Your task to perform on an android device: allow cookies in the chrome app Image 0: 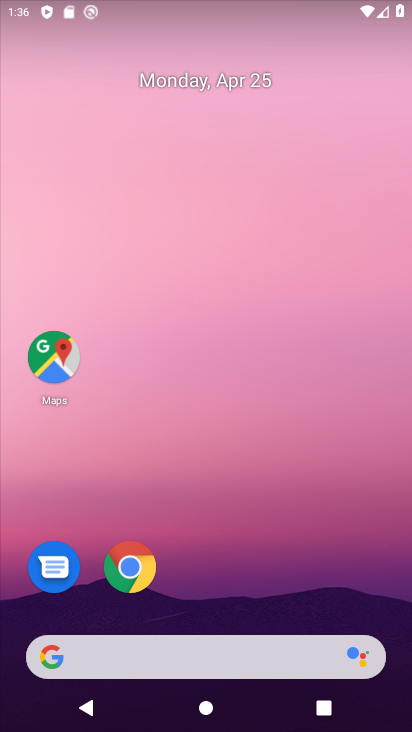
Step 0: click (127, 568)
Your task to perform on an android device: allow cookies in the chrome app Image 1: 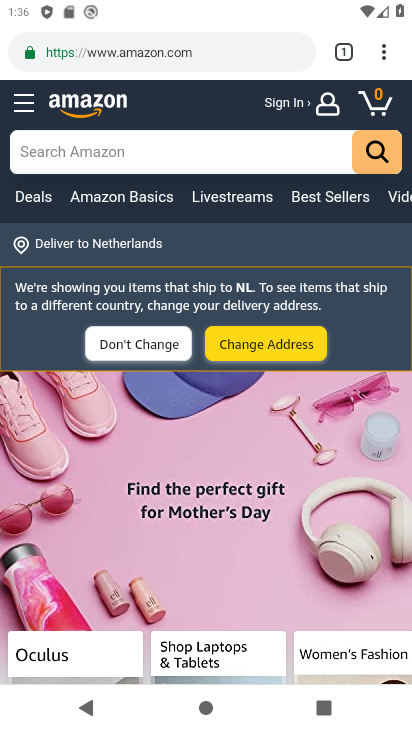
Step 1: click (380, 54)
Your task to perform on an android device: allow cookies in the chrome app Image 2: 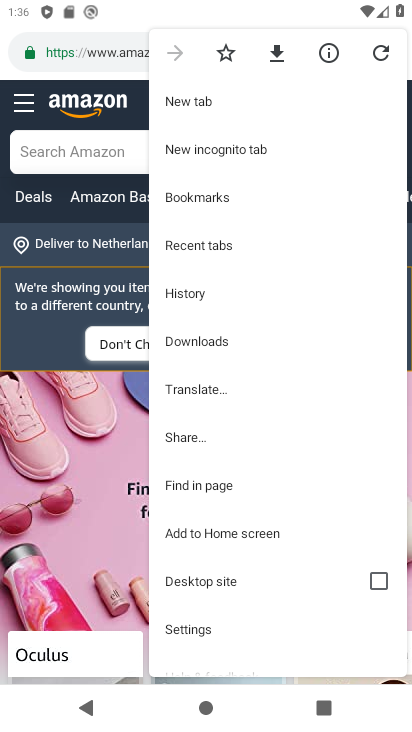
Step 2: drag from (285, 595) to (290, 280)
Your task to perform on an android device: allow cookies in the chrome app Image 3: 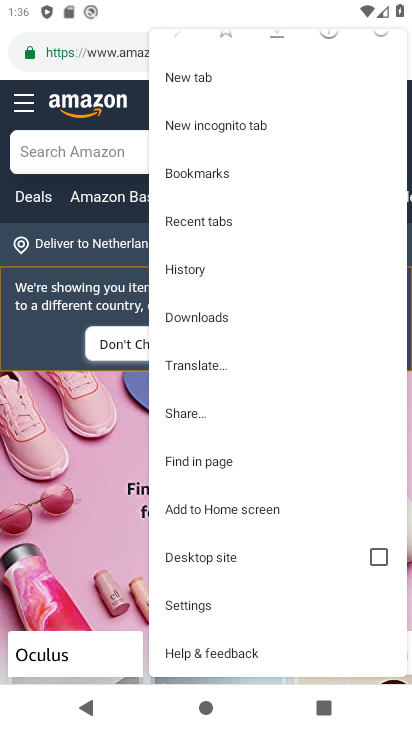
Step 3: click (176, 600)
Your task to perform on an android device: allow cookies in the chrome app Image 4: 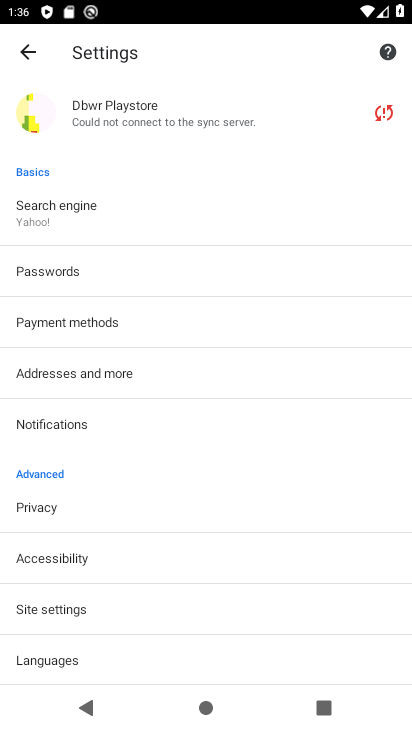
Step 4: drag from (150, 607) to (162, 418)
Your task to perform on an android device: allow cookies in the chrome app Image 5: 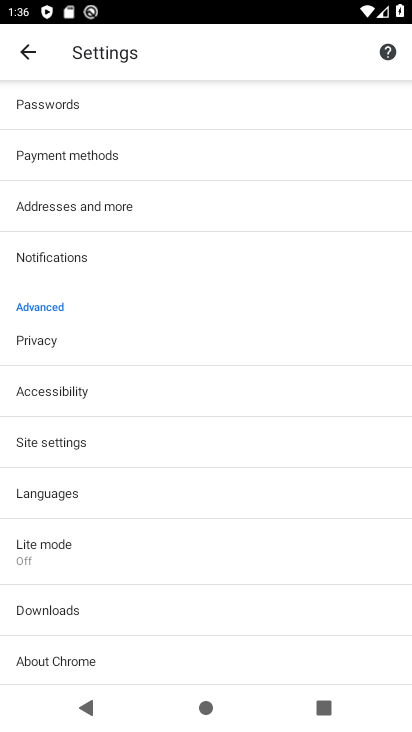
Step 5: click (43, 447)
Your task to perform on an android device: allow cookies in the chrome app Image 6: 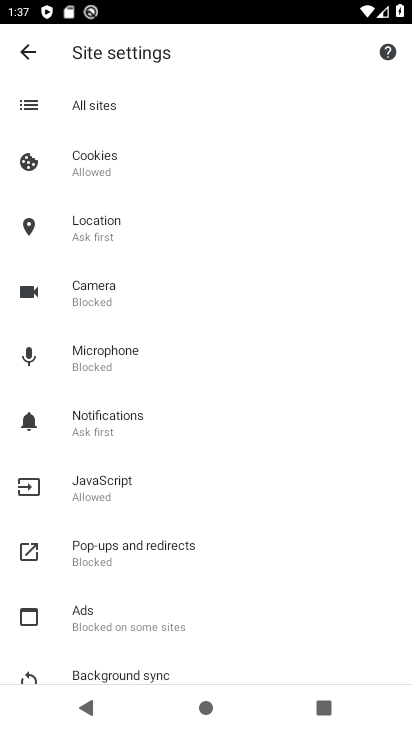
Step 6: click (87, 156)
Your task to perform on an android device: allow cookies in the chrome app Image 7: 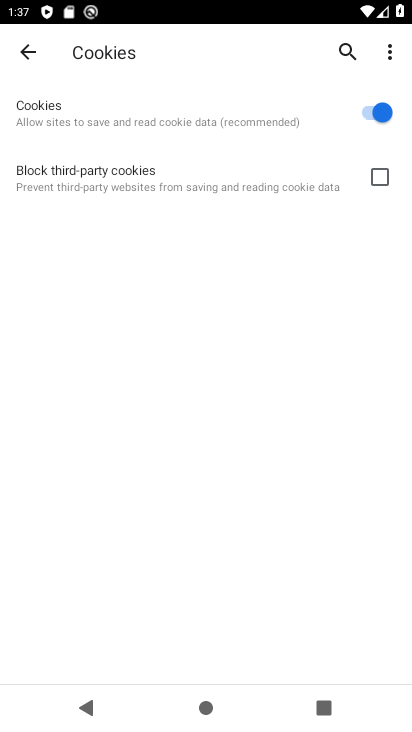
Step 7: task complete